Your task to perform on an android device: open wifi settings Image 0: 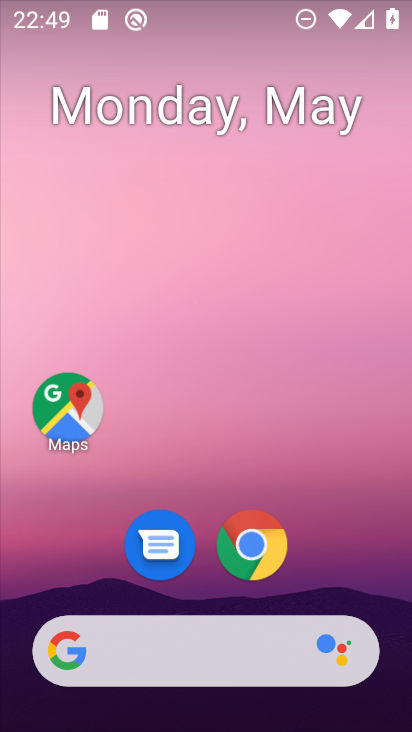
Step 0: drag from (313, 566) to (209, 51)
Your task to perform on an android device: open wifi settings Image 1: 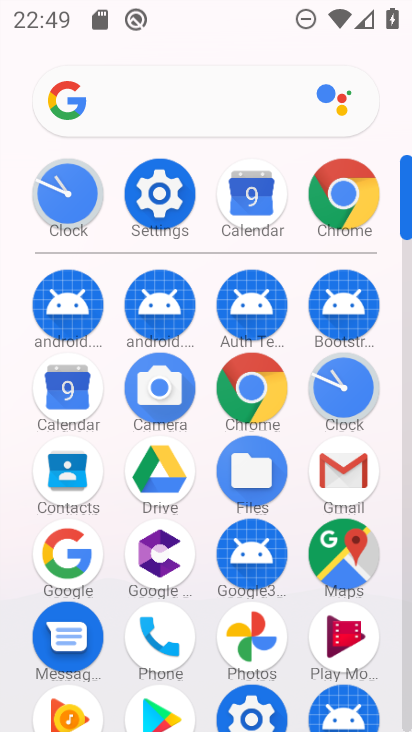
Step 1: click (159, 188)
Your task to perform on an android device: open wifi settings Image 2: 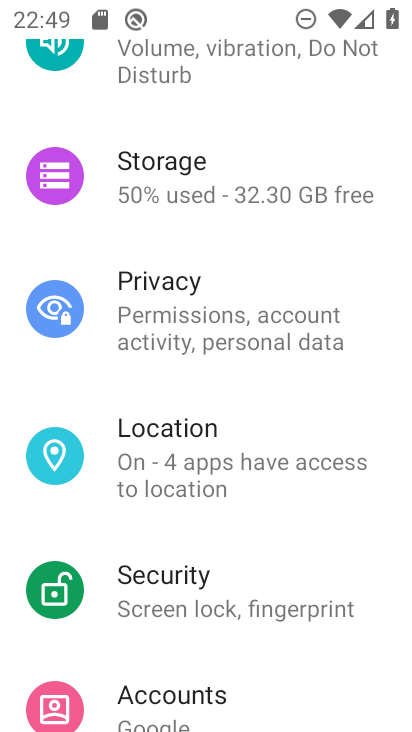
Step 2: drag from (224, 123) to (211, 491)
Your task to perform on an android device: open wifi settings Image 3: 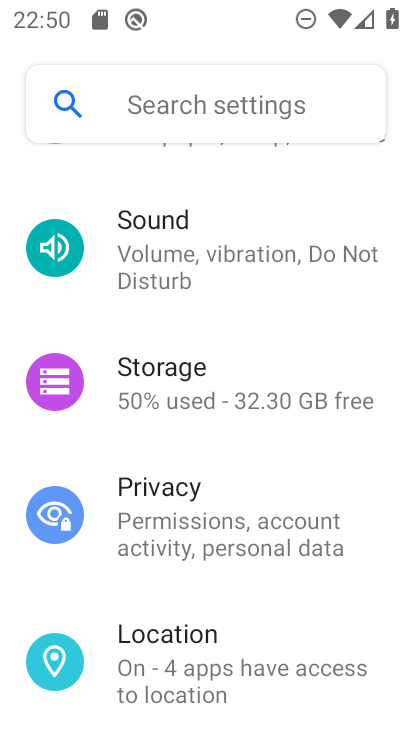
Step 3: drag from (189, 329) to (177, 695)
Your task to perform on an android device: open wifi settings Image 4: 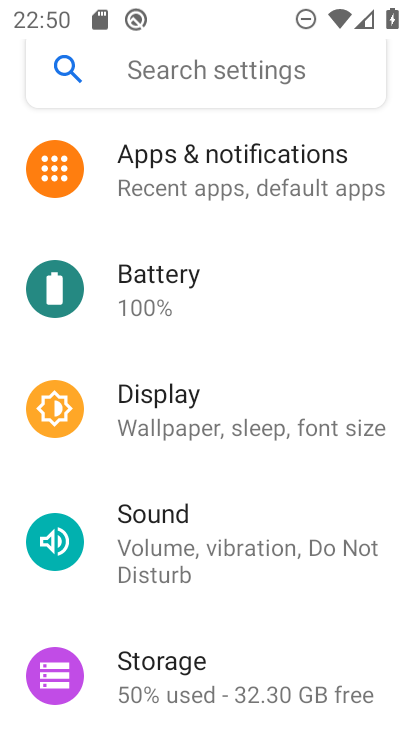
Step 4: drag from (174, 225) to (203, 560)
Your task to perform on an android device: open wifi settings Image 5: 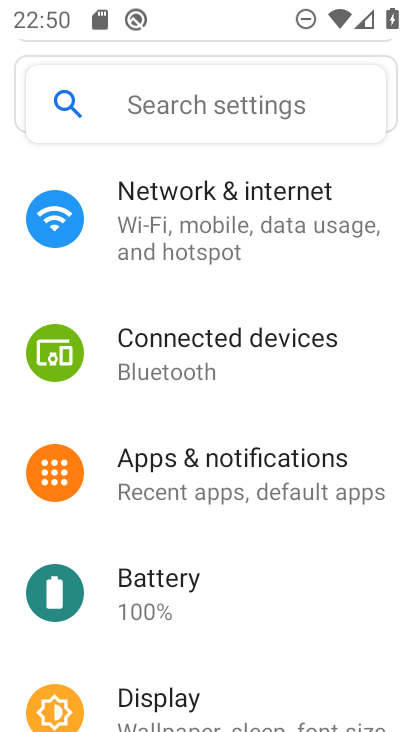
Step 5: click (199, 197)
Your task to perform on an android device: open wifi settings Image 6: 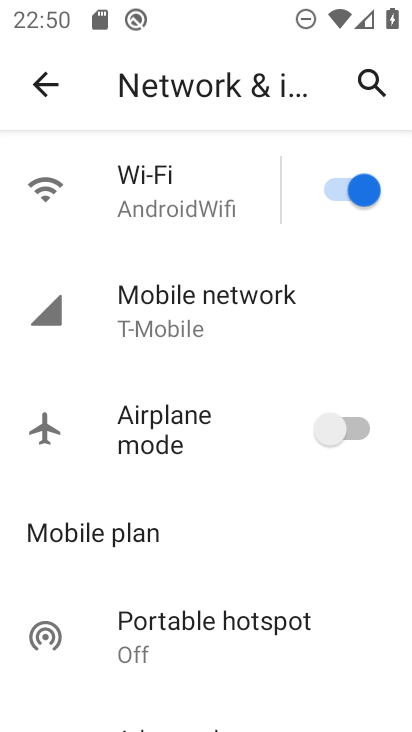
Step 6: click (155, 169)
Your task to perform on an android device: open wifi settings Image 7: 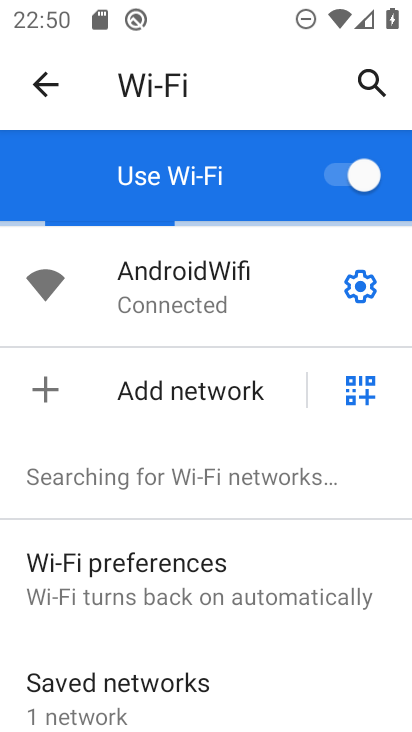
Step 7: task complete